Your task to perform on an android device: Go to accessibility settings Image 0: 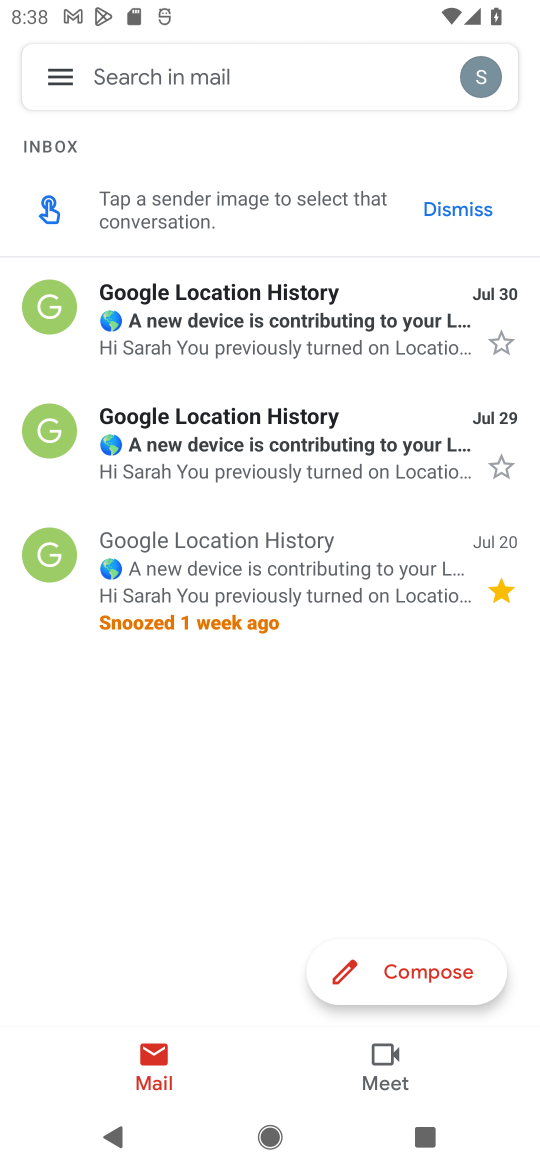
Step 0: press home button
Your task to perform on an android device: Go to accessibility settings Image 1: 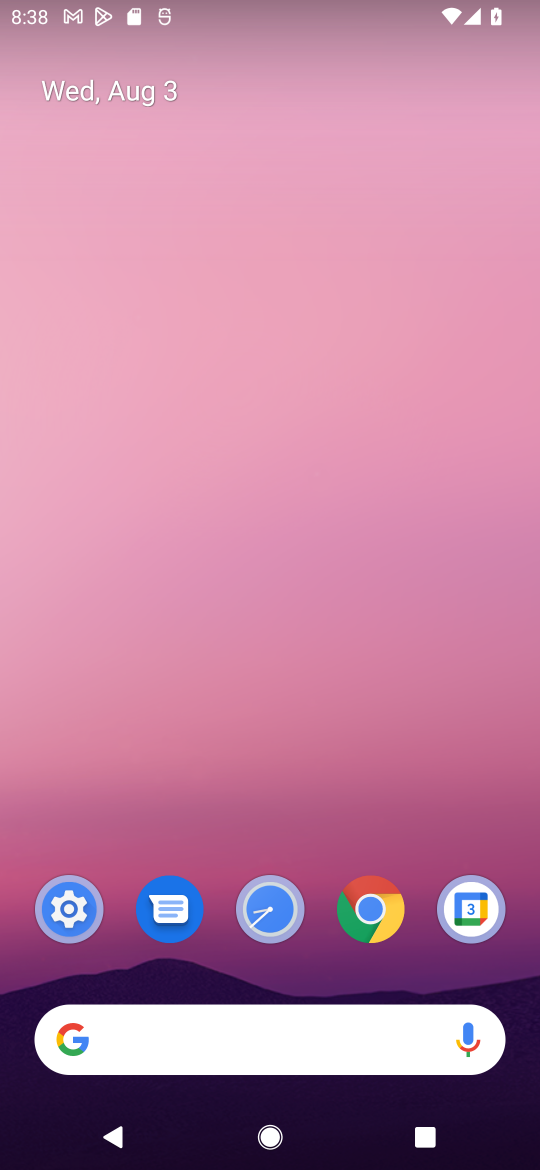
Step 1: drag from (411, 809) to (471, 321)
Your task to perform on an android device: Go to accessibility settings Image 2: 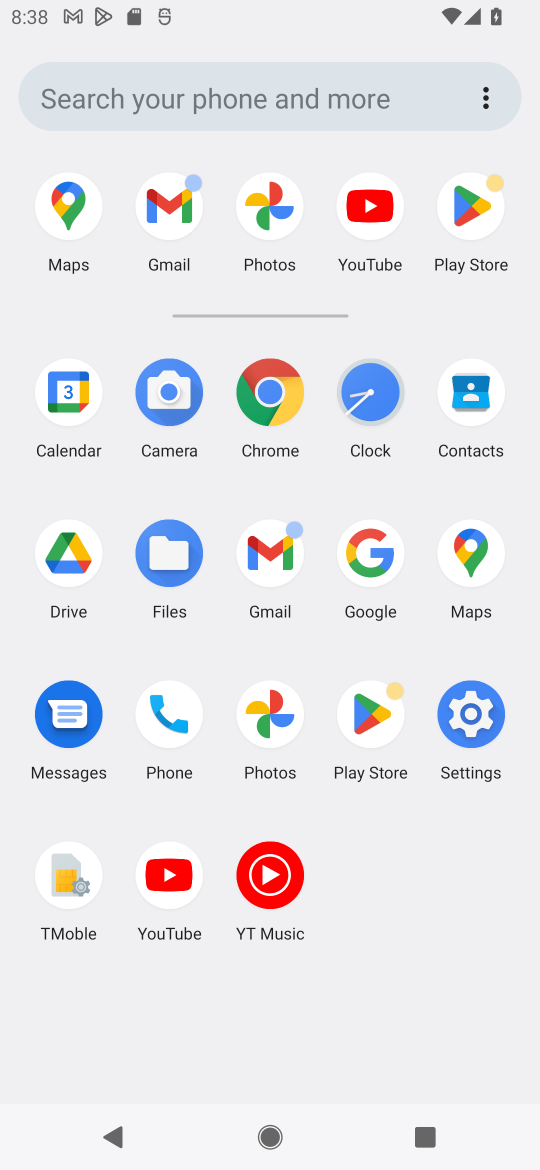
Step 2: click (469, 721)
Your task to perform on an android device: Go to accessibility settings Image 3: 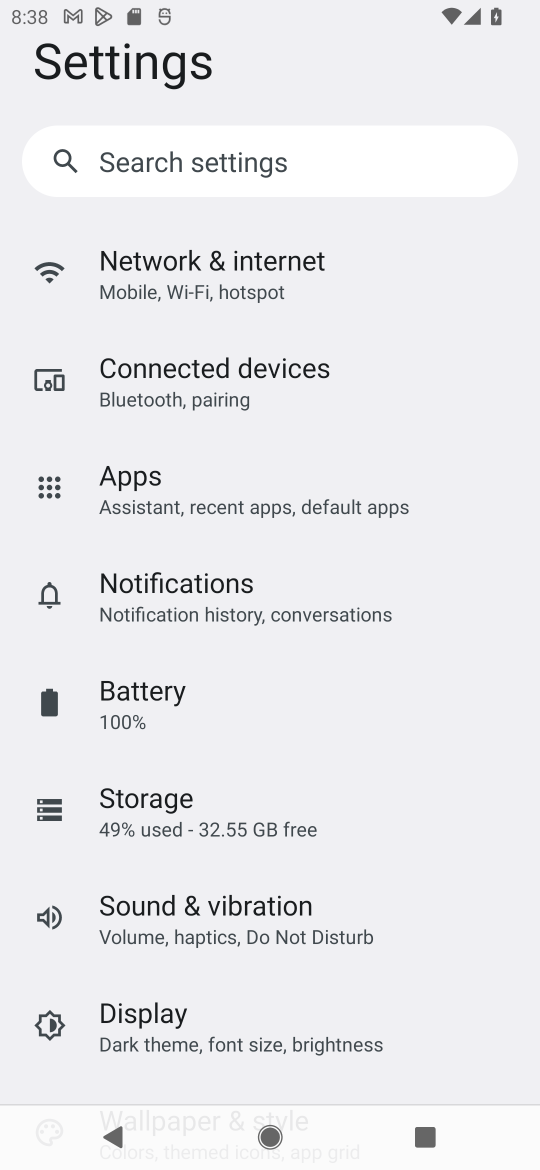
Step 3: drag from (456, 1003) to (470, 833)
Your task to perform on an android device: Go to accessibility settings Image 4: 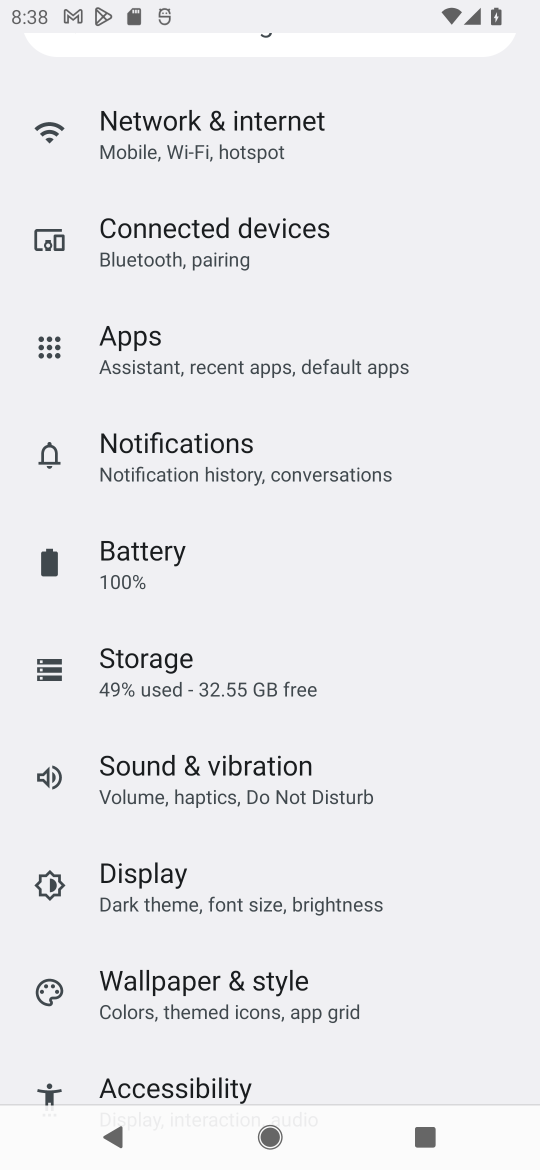
Step 4: drag from (469, 1043) to (472, 826)
Your task to perform on an android device: Go to accessibility settings Image 5: 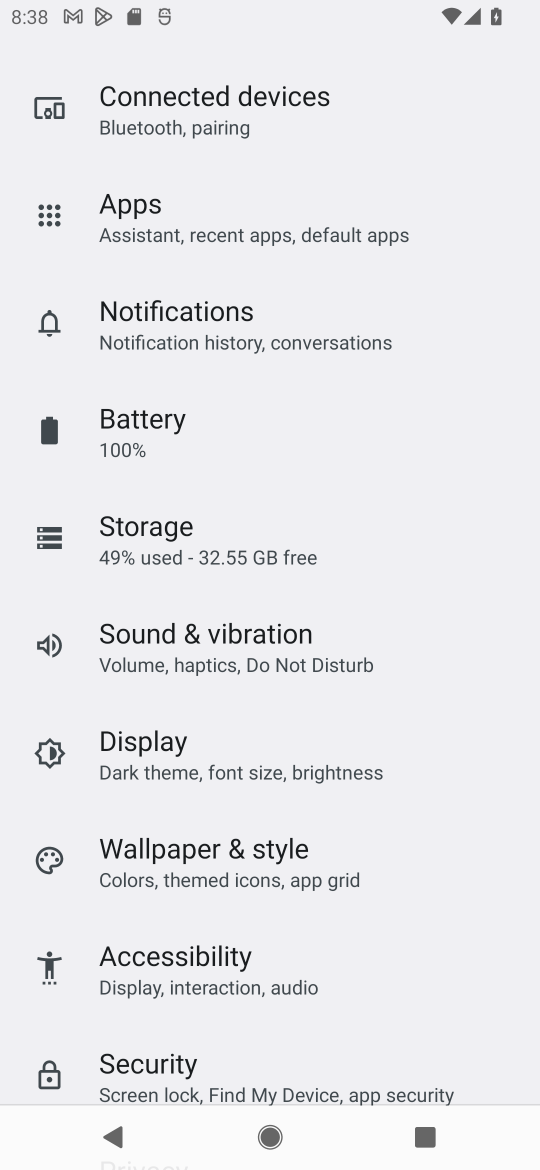
Step 5: drag from (446, 1033) to (448, 830)
Your task to perform on an android device: Go to accessibility settings Image 6: 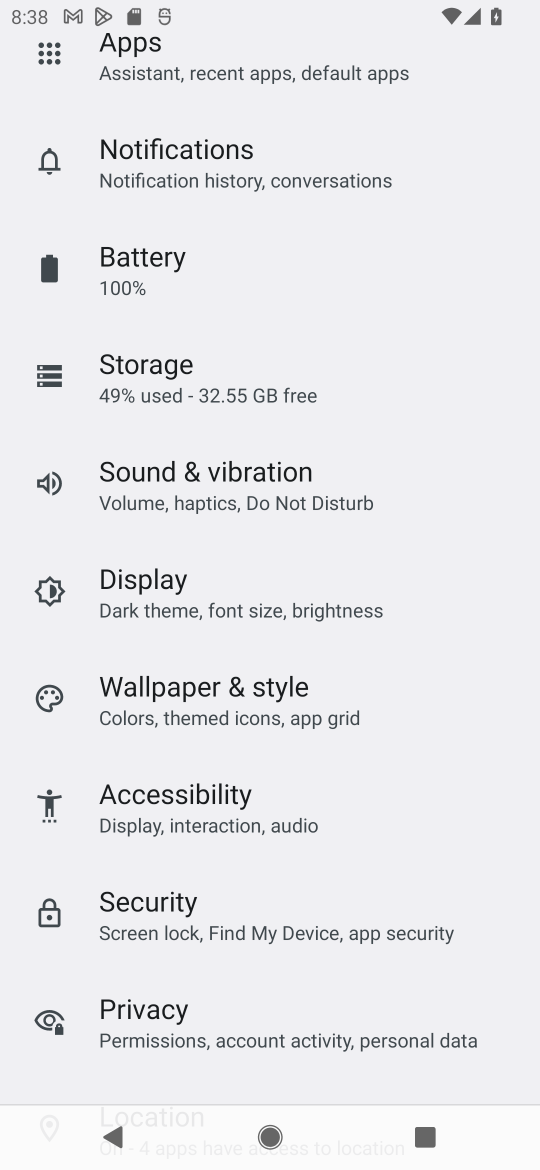
Step 6: drag from (455, 1065) to (470, 862)
Your task to perform on an android device: Go to accessibility settings Image 7: 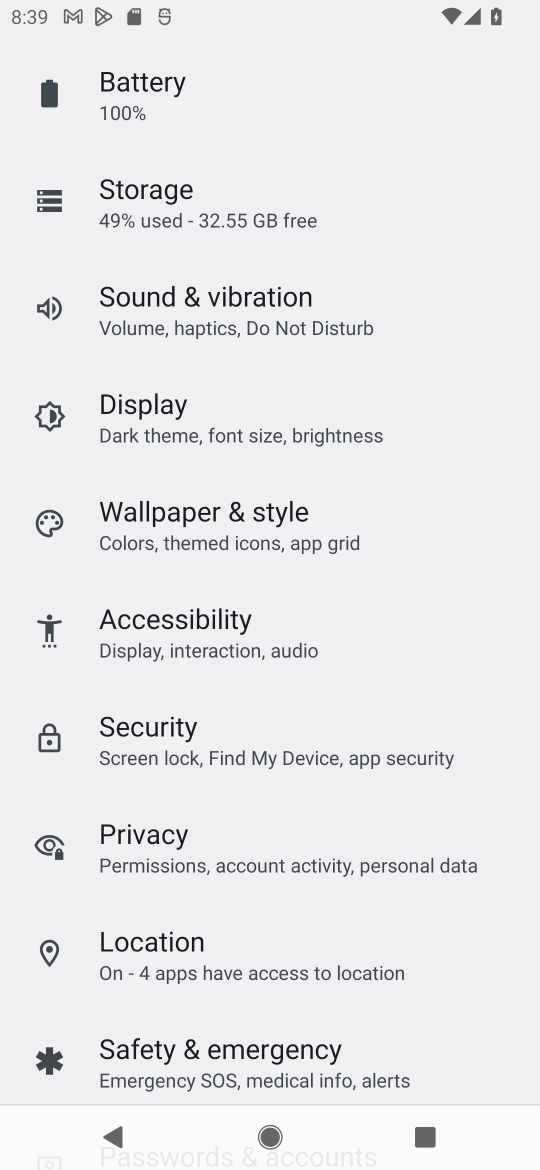
Step 7: drag from (494, 1011) to (469, 668)
Your task to perform on an android device: Go to accessibility settings Image 8: 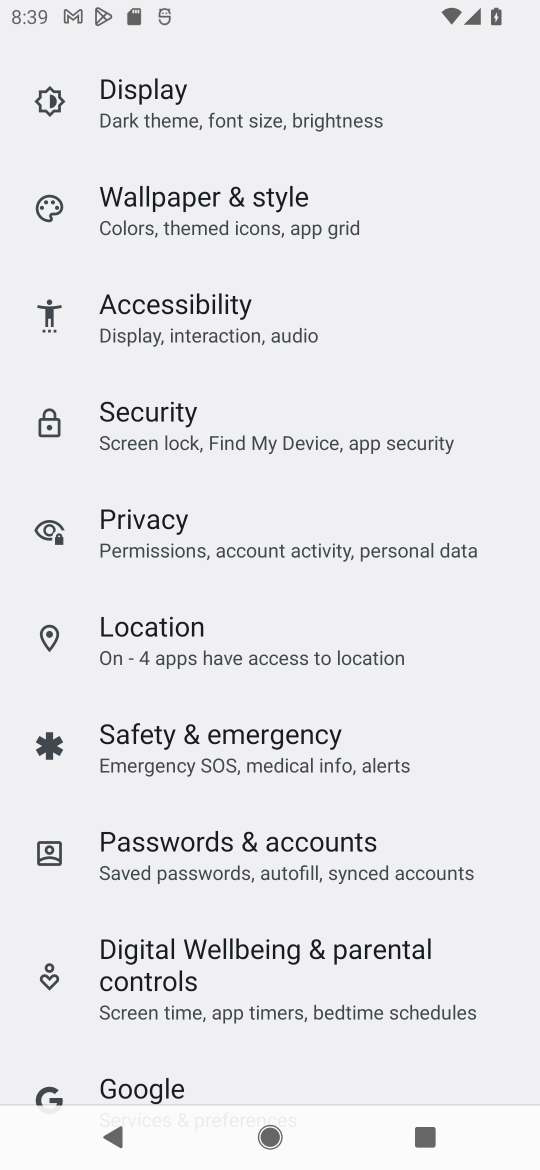
Step 8: drag from (459, 1042) to (444, 753)
Your task to perform on an android device: Go to accessibility settings Image 9: 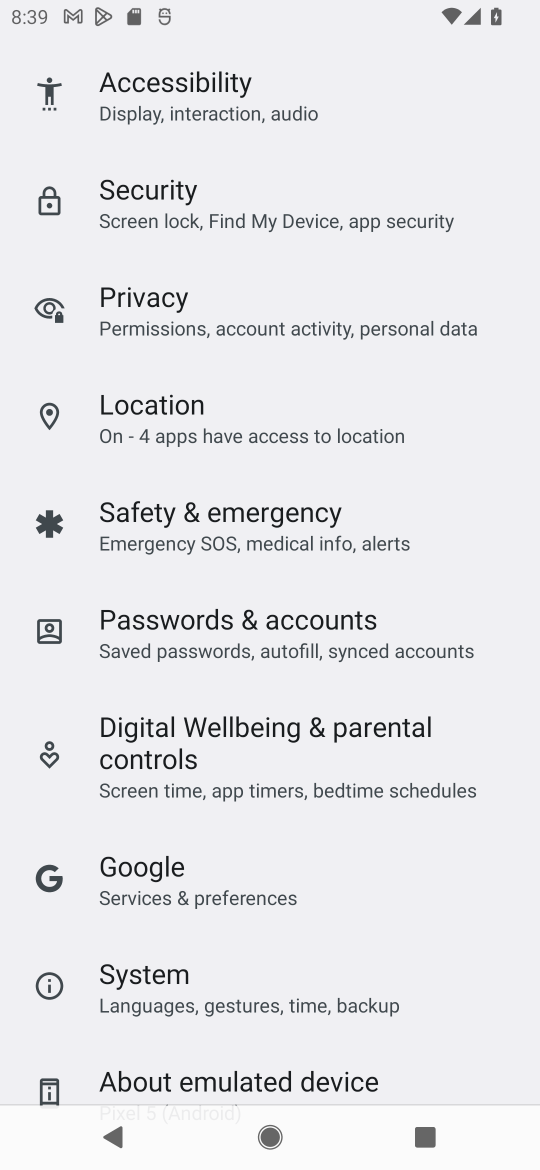
Step 9: drag from (490, 522) to (483, 685)
Your task to perform on an android device: Go to accessibility settings Image 10: 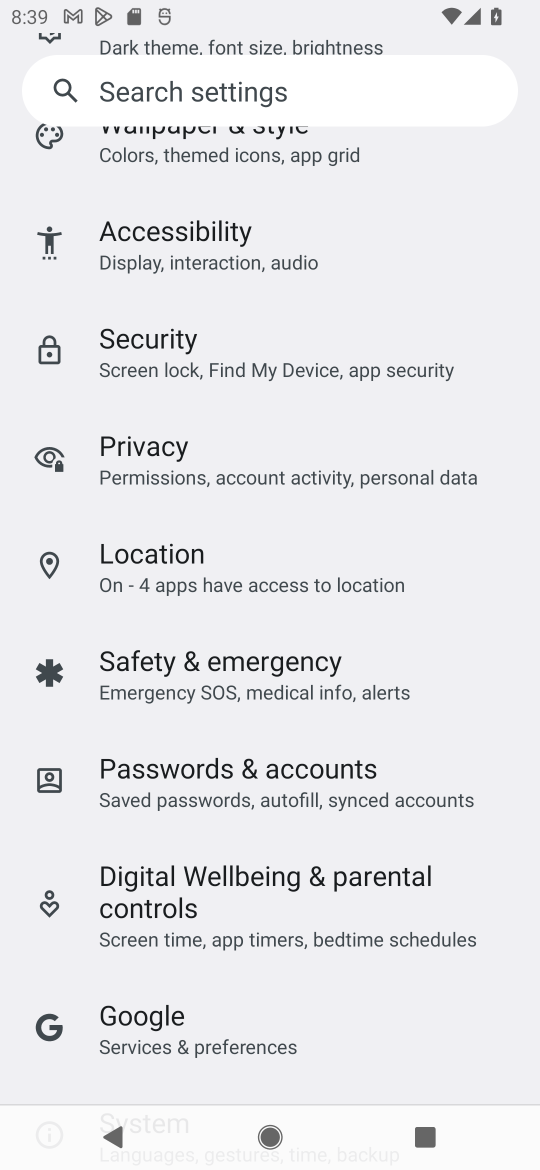
Step 10: drag from (483, 571) to (473, 798)
Your task to perform on an android device: Go to accessibility settings Image 11: 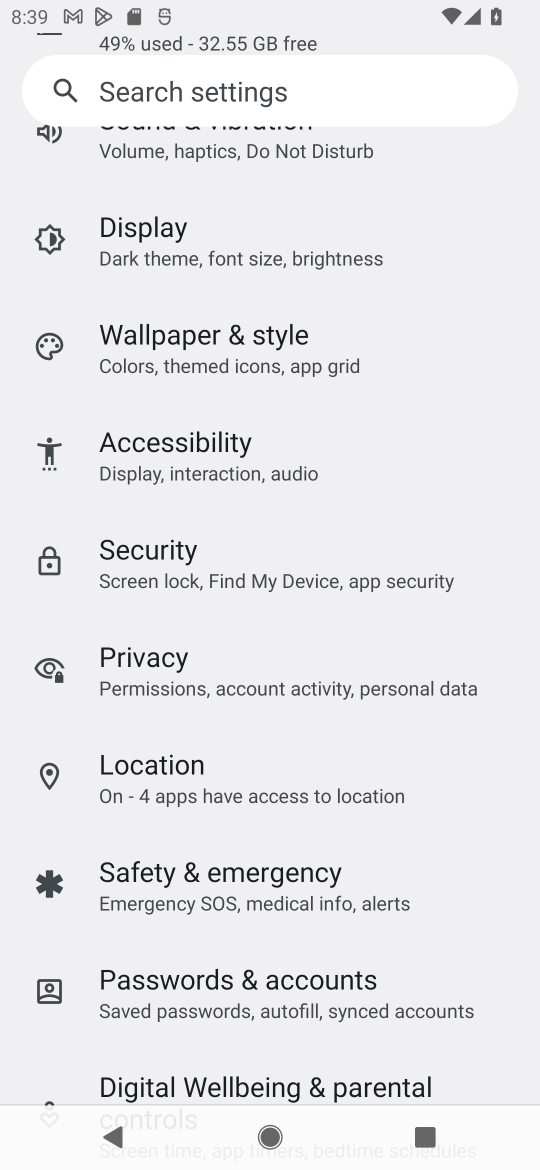
Step 11: drag from (473, 535) to (469, 925)
Your task to perform on an android device: Go to accessibility settings Image 12: 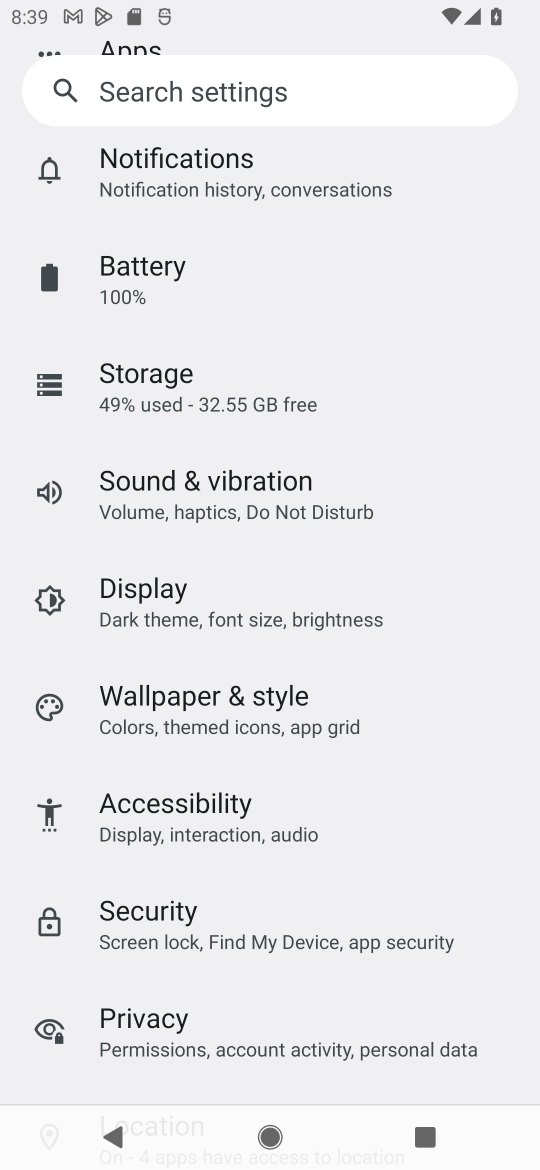
Step 12: click (254, 805)
Your task to perform on an android device: Go to accessibility settings Image 13: 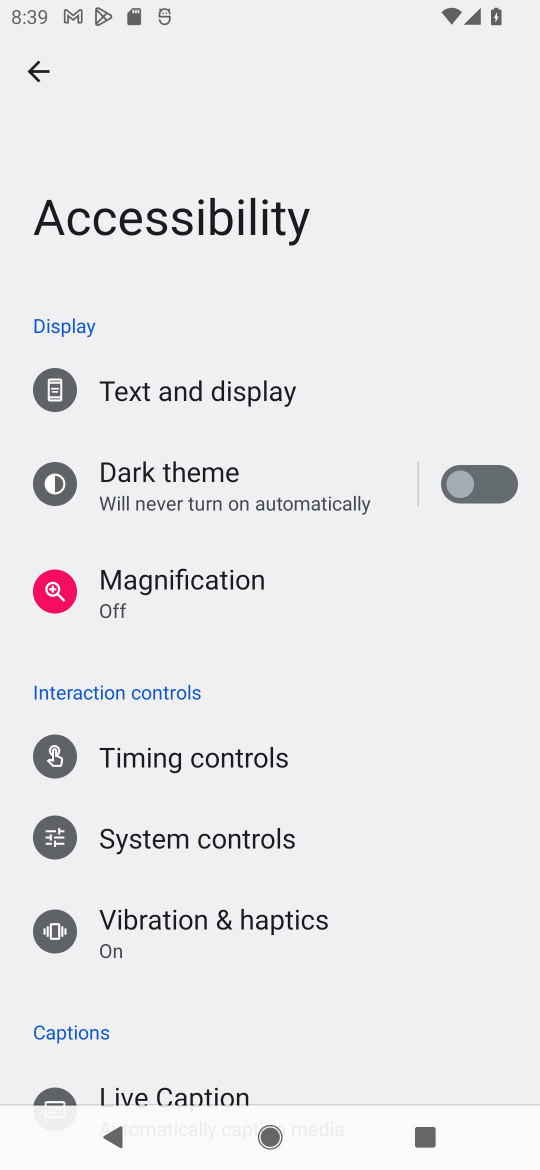
Step 13: task complete